Your task to perform on an android device: Toggle the flashlight Image 0: 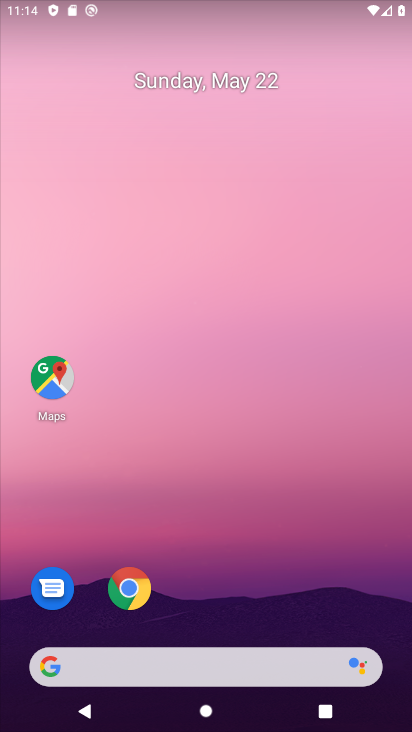
Step 0: drag from (200, 630) to (141, 8)
Your task to perform on an android device: Toggle the flashlight Image 1: 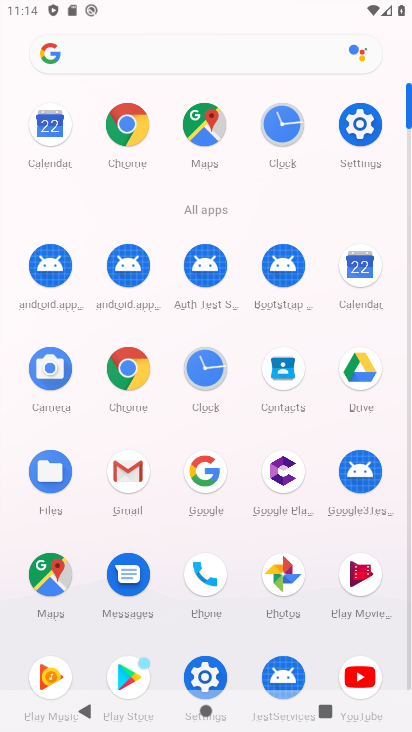
Step 1: click (338, 111)
Your task to perform on an android device: Toggle the flashlight Image 2: 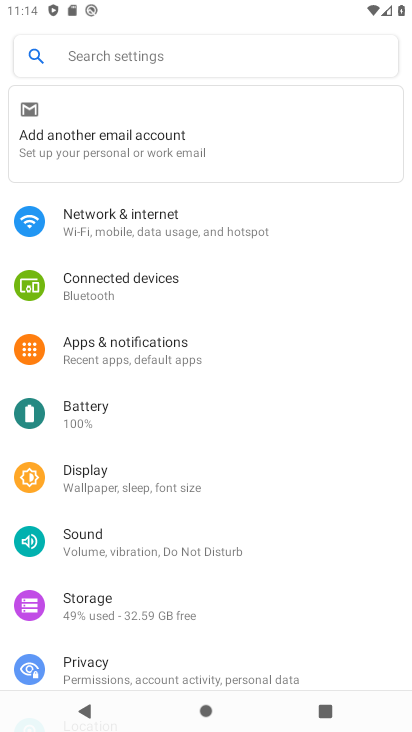
Step 2: task complete